Your task to perform on an android device: move a message to another label in the gmail app Image 0: 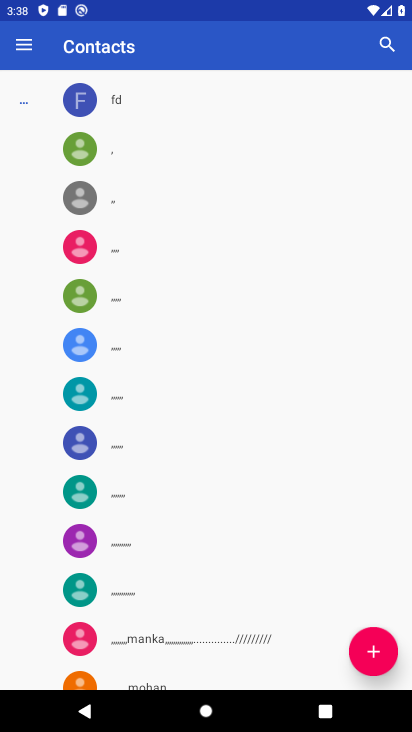
Step 0: press home button
Your task to perform on an android device: move a message to another label in the gmail app Image 1: 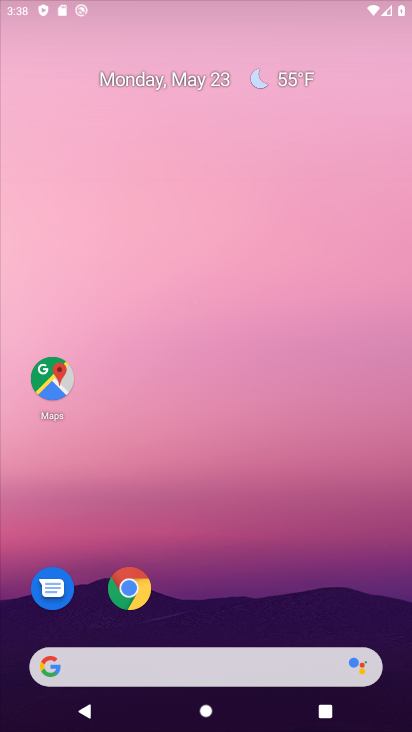
Step 1: drag from (251, 517) to (261, 110)
Your task to perform on an android device: move a message to another label in the gmail app Image 2: 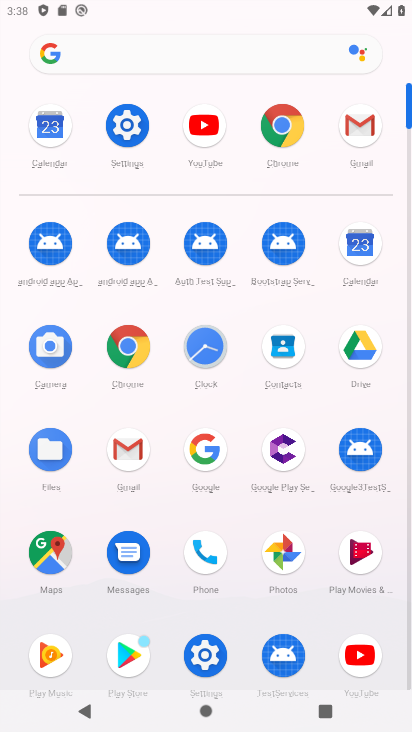
Step 2: click (358, 116)
Your task to perform on an android device: move a message to another label in the gmail app Image 3: 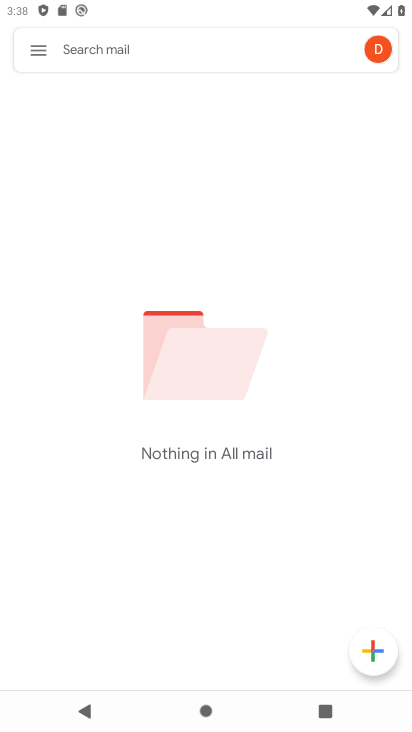
Step 3: click (29, 49)
Your task to perform on an android device: move a message to another label in the gmail app Image 4: 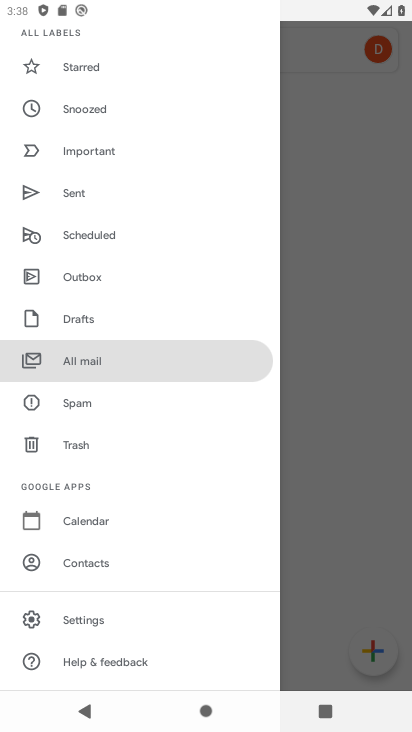
Step 4: click (104, 363)
Your task to perform on an android device: move a message to another label in the gmail app Image 5: 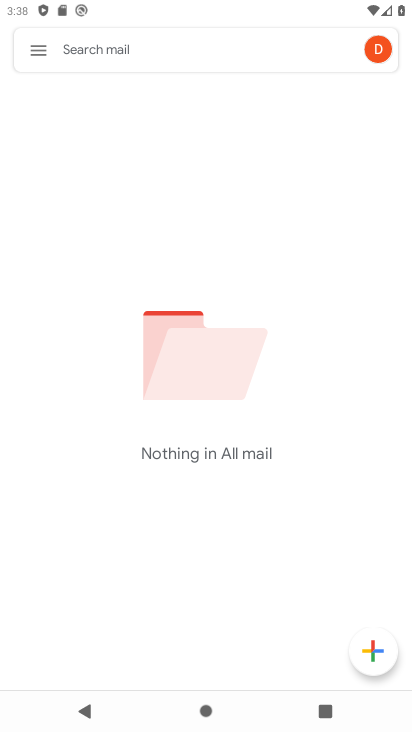
Step 5: task complete